Your task to perform on an android device: Open Yahoo.com Image 0: 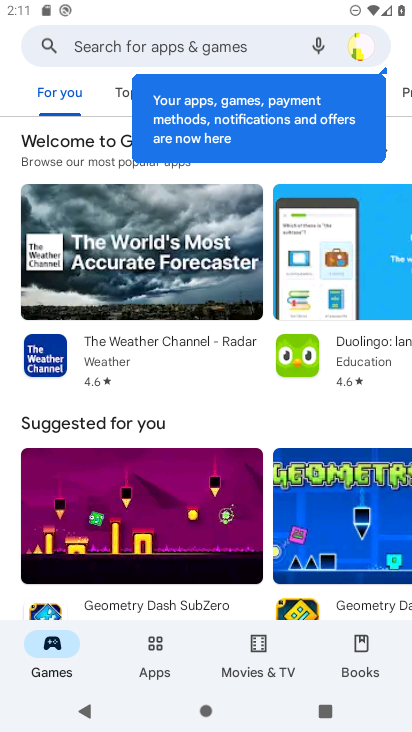
Step 0: press home button
Your task to perform on an android device: Open Yahoo.com Image 1: 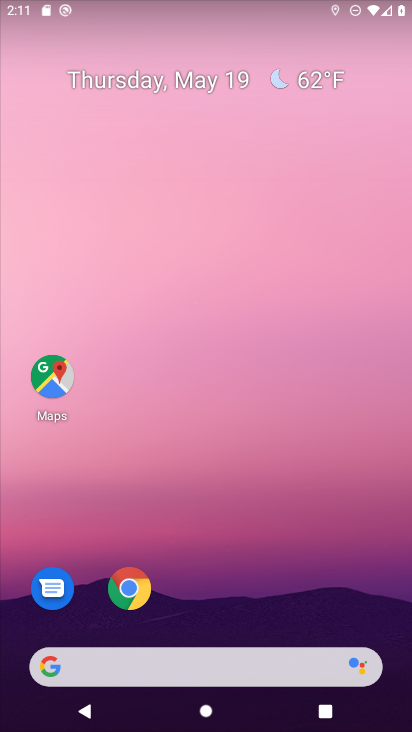
Step 1: click (133, 592)
Your task to perform on an android device: Open Yahoo.com Image 2: 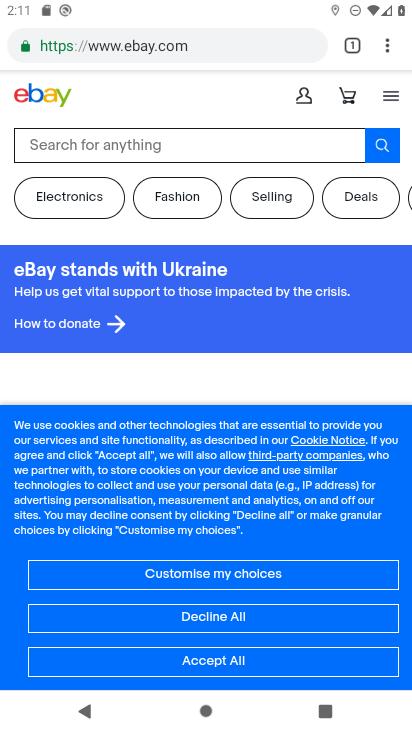
Step 2: click (82, 46)
Your task to perform on an android device: Open Yahoo.com Image 3: 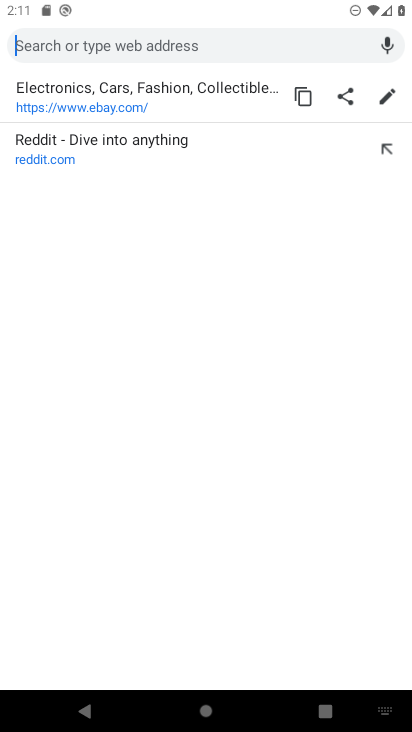
Step 3: type "yahoo.com"
Your task to perform on an android device: Open Yahoo.com Image 4: 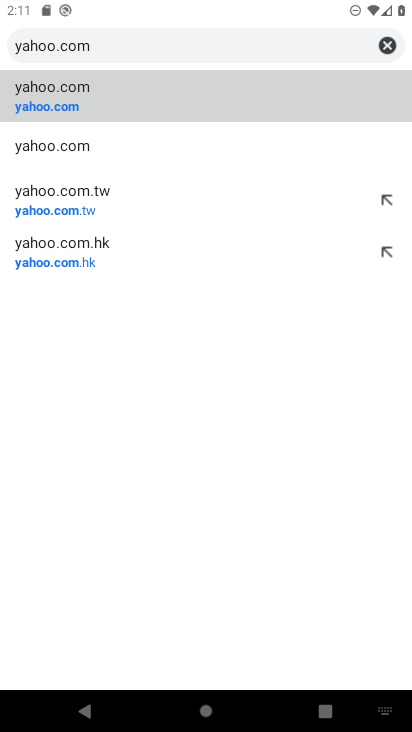
Step 4: click (38, 95)
Your task to perform on an android device: Open Yahoo.com Image 5: 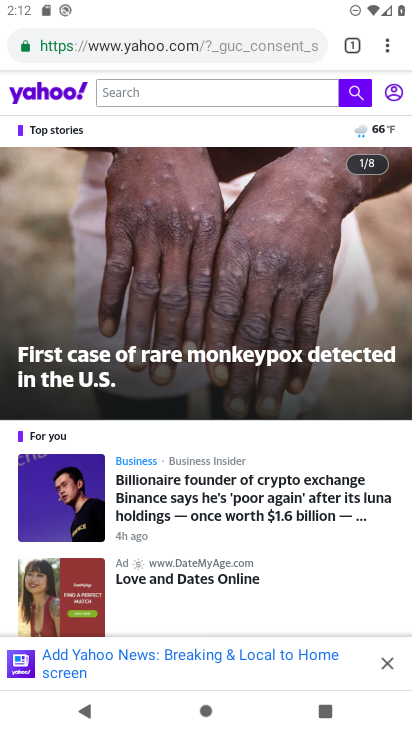
Step 5: task complete